Your task to perform on an android device: Open maps Image 0: 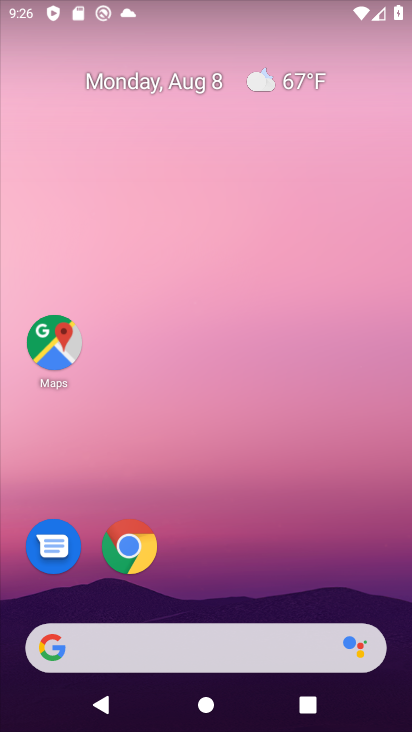
Step 0: click (67, 349)
Your task to perform on an android device: Open maps Image 1: 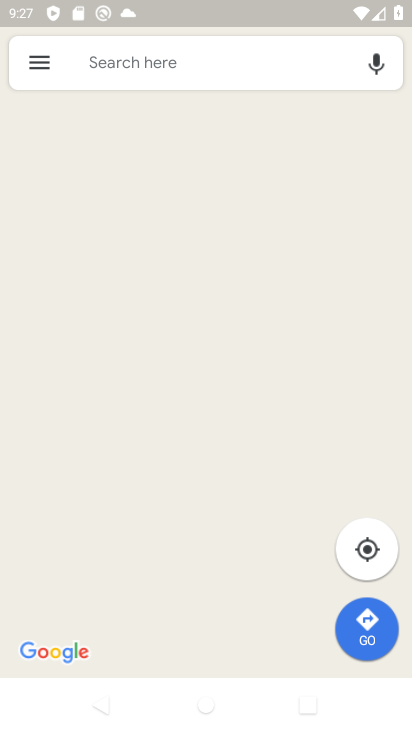
Step 1: task complete